Your task to perform on an android device: check battery use Image 0: 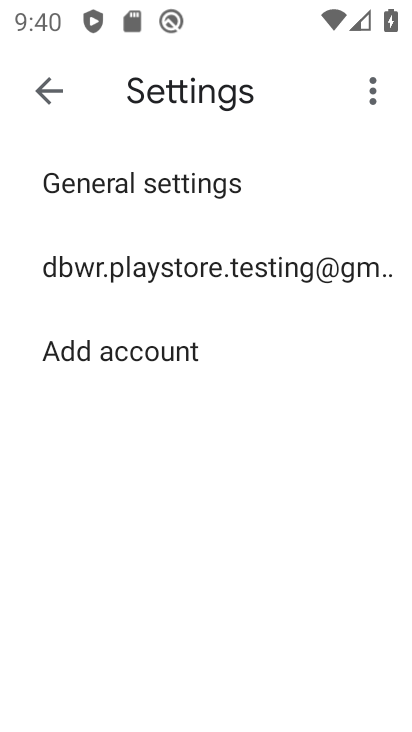
Step 0: press home button
Your task to perform on an android device: check battery use Image 1: 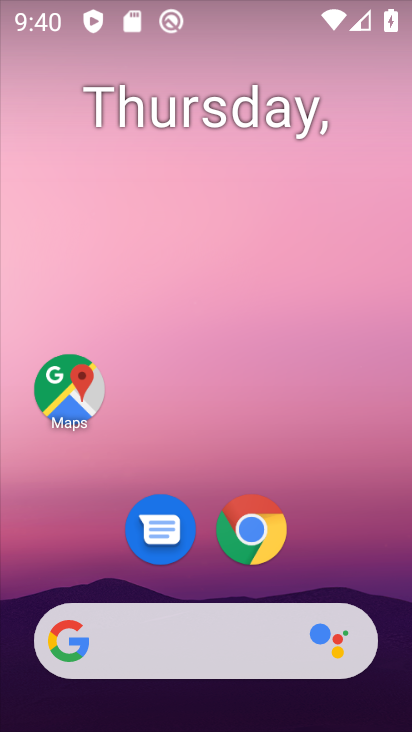
Step 1: drag from (293, 580) to (288, 51)
Your task to perform on an android device: check battery use Image 2: 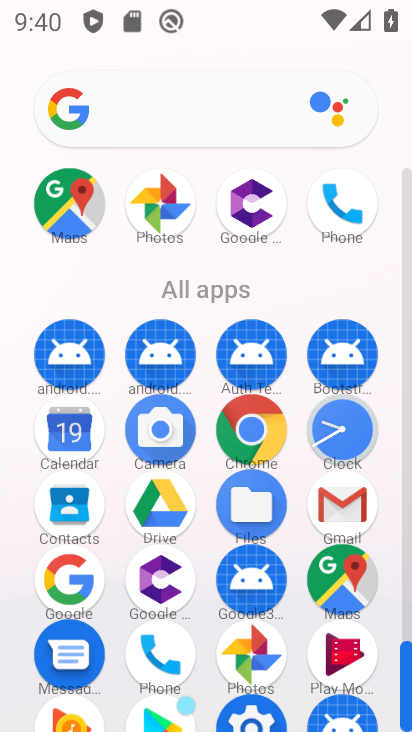
Step 2: drag from (201, 546) to (216, 85)
Your task to perform on an android device: check battery use Image 3: 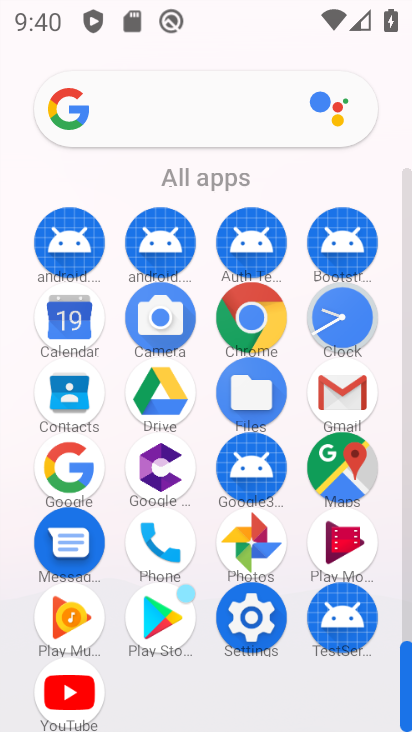
Step 3: click (252, 605)
Your task to perform on an android device: check battery use Image 4: 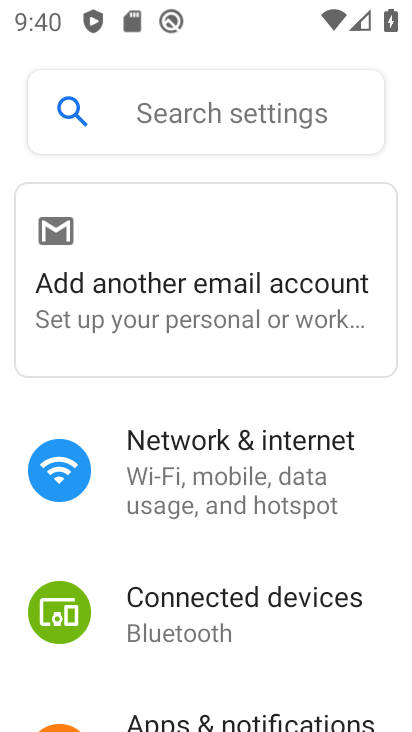
Step 4: drag from (240, 609) to (237, 370)
Your task to perform on an android device: check battery use Image 5: 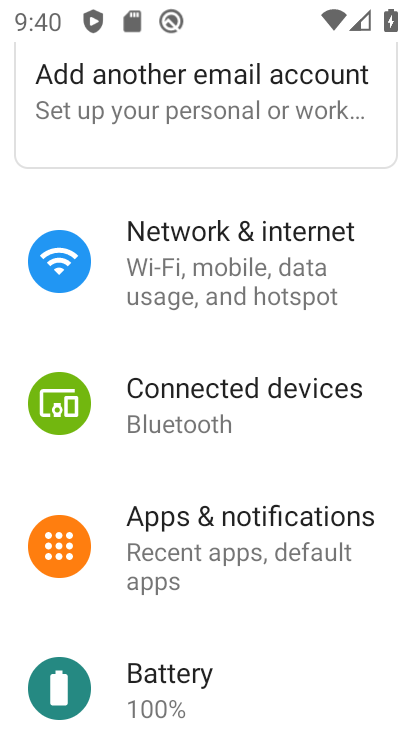
Step 5: drag from (224, 629) to (227, 333)
Your task to perform on an android device: check battery use Image 6: 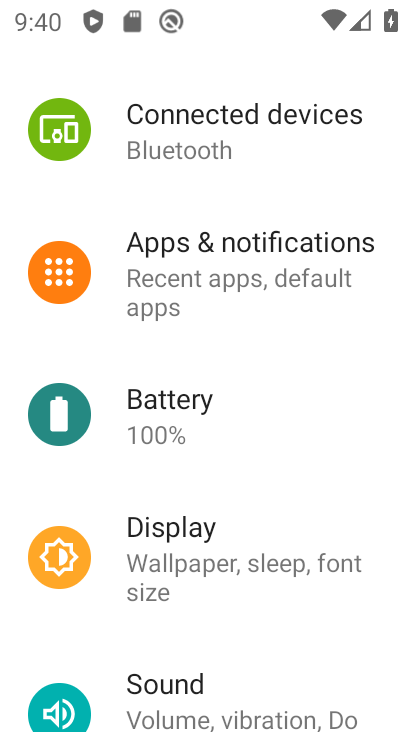
Step 6: click (168, 410)
Your task to perform on an android device: check battery use Image 7: 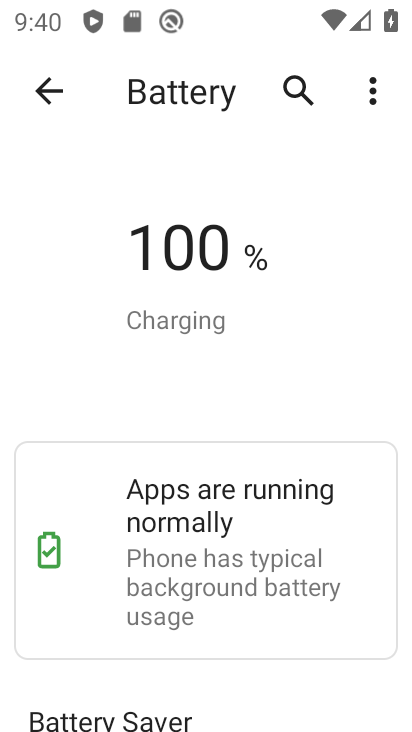
Step 7: click (371, 86)
Your task to perform on an android device: check battery use Image 8: 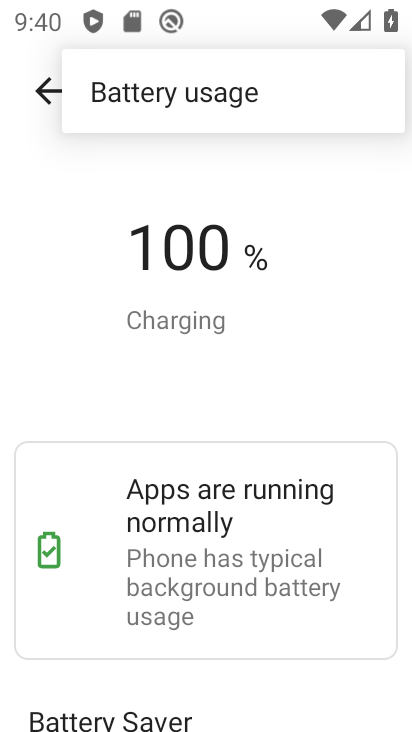
Step 8: click (352, 91)
Your task to perform on an android device: check battery use Image 9: 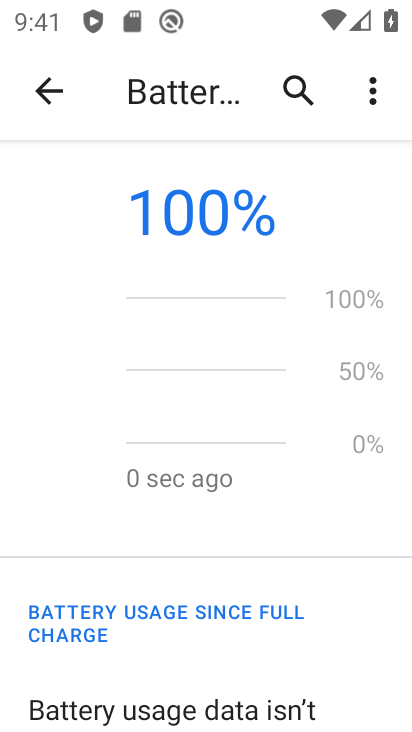
Step 9: task complete